Your task to perform on an android device: open a bookmark in the chrome app Image 0: 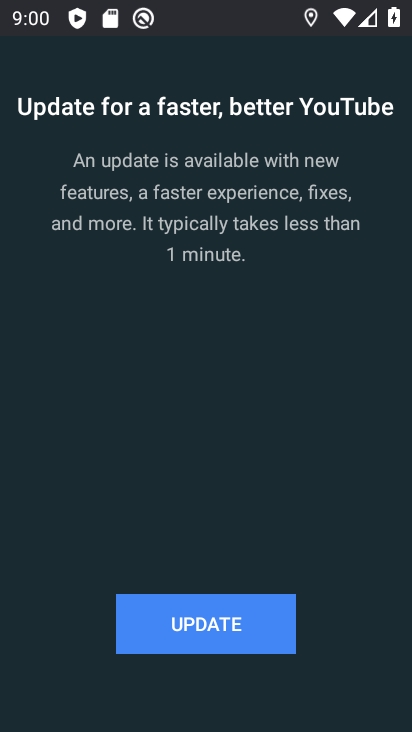
Step 0: drag from (256, 572) to (164, 572)
Your task to perform on an android device: open a bookmark in the chrome app Image 1: 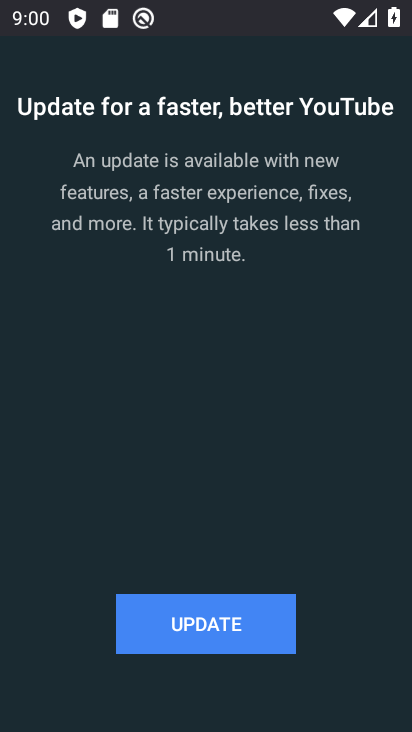
Step 1: press back button
Your task to perform on an android device: open a bookmark in the chrome app Image 2: 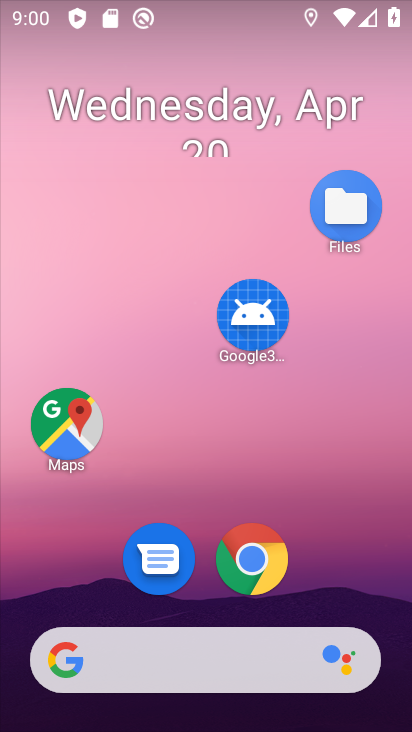
Step 2: click (251, 575)
Your task to perform on an android device: open a bookmark in the chrome app Image 3: 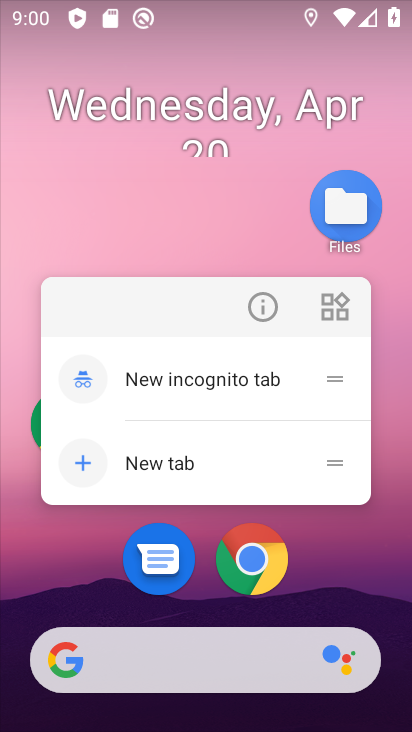
Step 3: click (257, 566)
Your task to perform on an android device: open a bookmark in the chrome app Image 4: 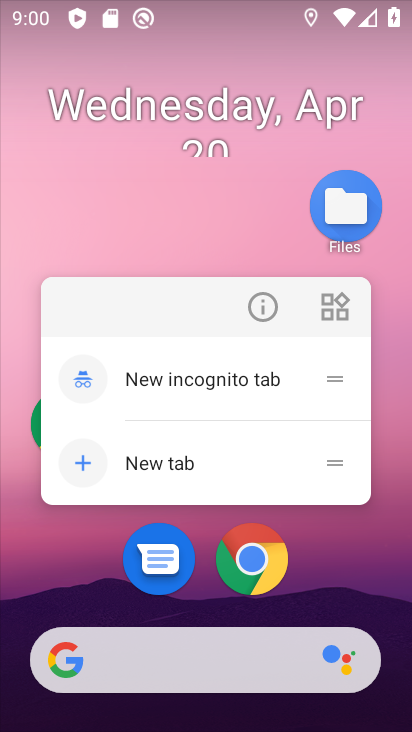
Step 4: click (256, 565)
Your task to perform on an android device: open a bookmark in the chrome app Image 5: 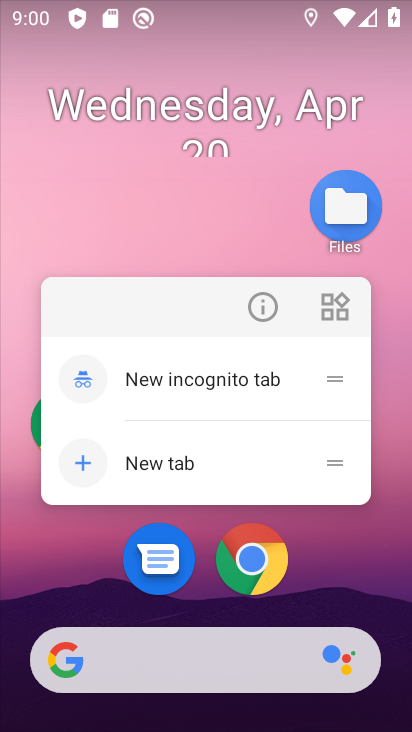
Step 5: click (255, 559)
Your task to perform on an android device: open a bookmark in the chrome app Image 6: 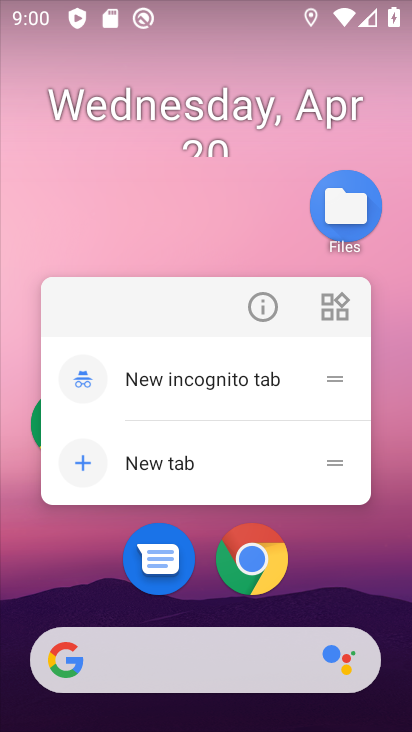
Step 6: click (248, 548)
Your task to perform on an android device: open a bookmark in the chrome app Image 7: 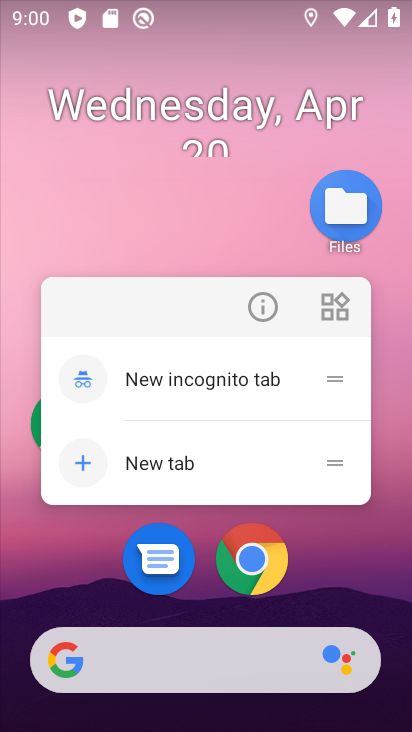
Step 7: click (281, 547)
Your task to perform on an android device: open a bookmark in the chrome app Image 8: 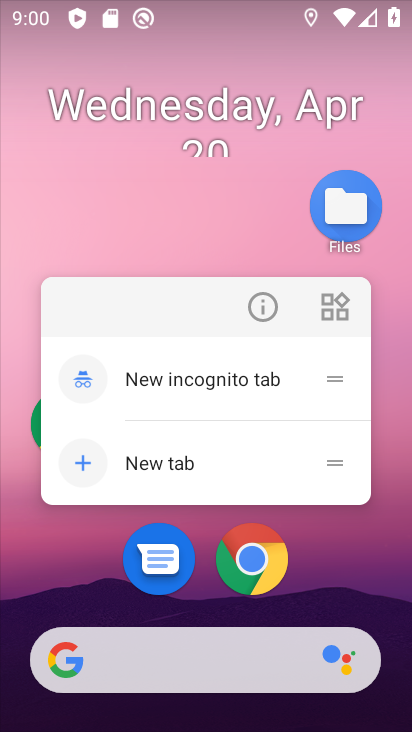
Step 8: click (267, 558)
Your task to perform on an android device: open a bookmark in the chrome app Image 9: 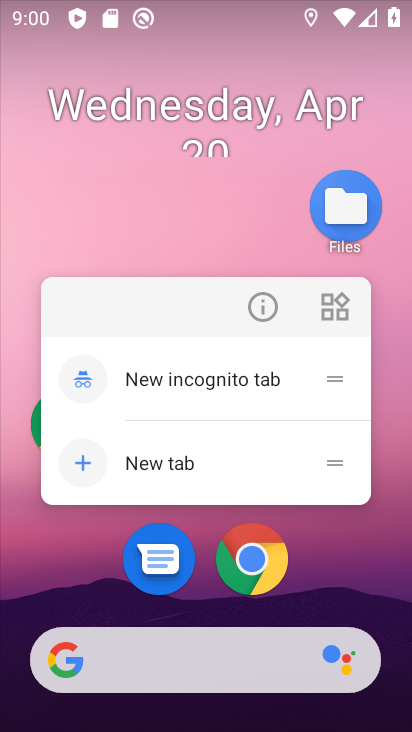
Step 9: click (250, 567)
Your task to perform on an android device: open a bookmark in the chrome app Image 10: 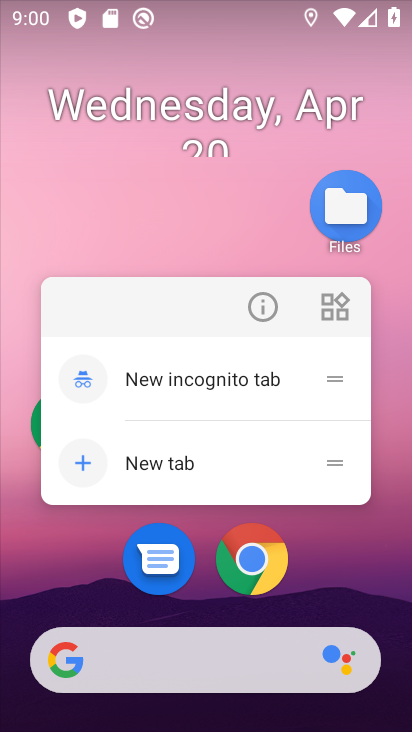
Step 10: click (229, 531)
Your task to perform on an android device: open a bookmark in the chrome app Image 11: 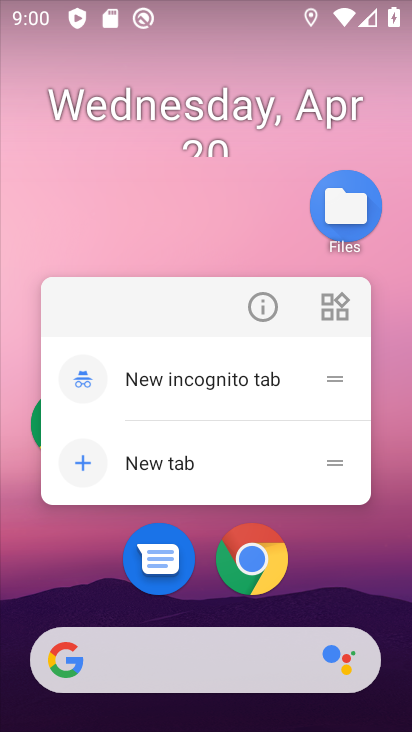
Step 11: click (280, 579)
Your task to perform on an android device: open a bookmark in the chrome app Image 12: 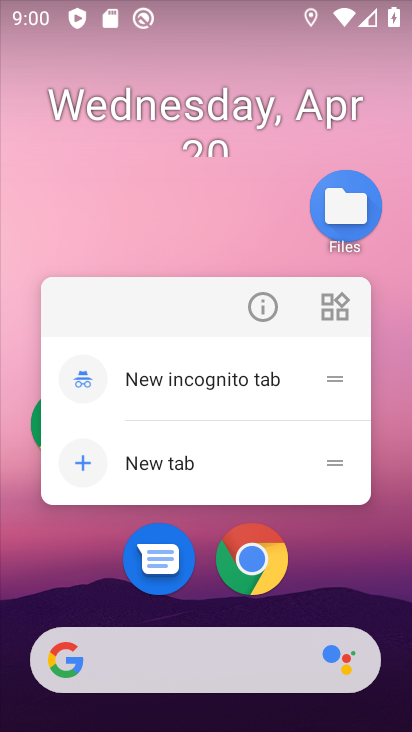
Step 12: click (271, 573)
Your task to perform on an android device: open a bookmark in the chrome app Image 13: 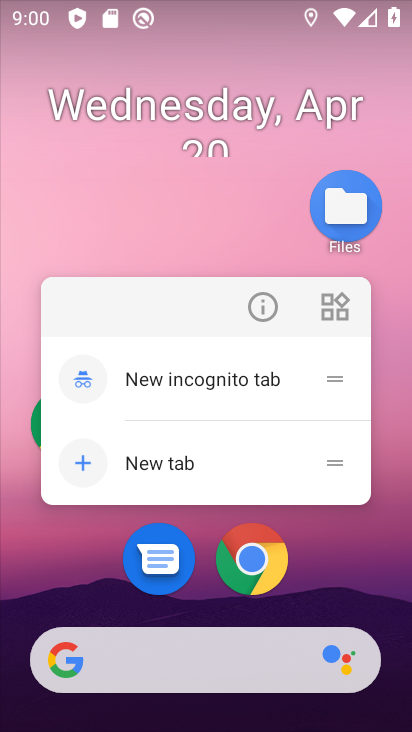
Step 13: drag from (361, 535) to (410, 106)
Your task to perform on an android device: open a bookmark in the chrome app Image 14: 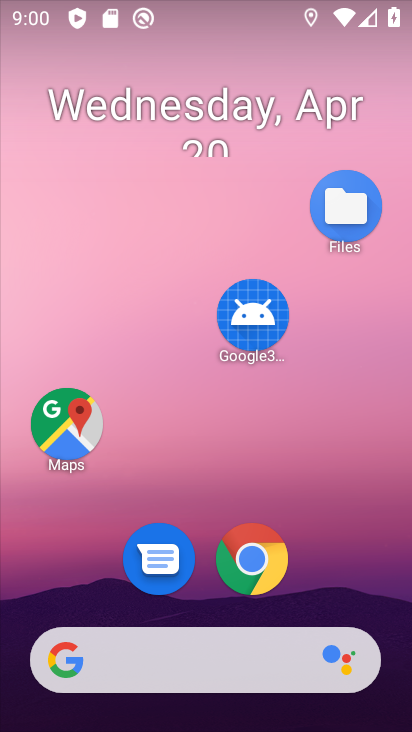
Step 14: click (250, 567)
Your task to perform on an android device: open a bookmark in the chrome app Image 15: 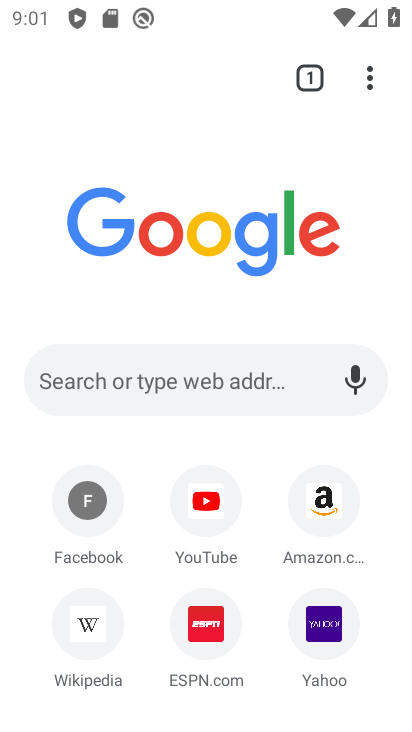
Step 15: drag from (380, 92) to (252, 302)
Your task to perform on an android device: open a bookmark in the chrome app Image 16: 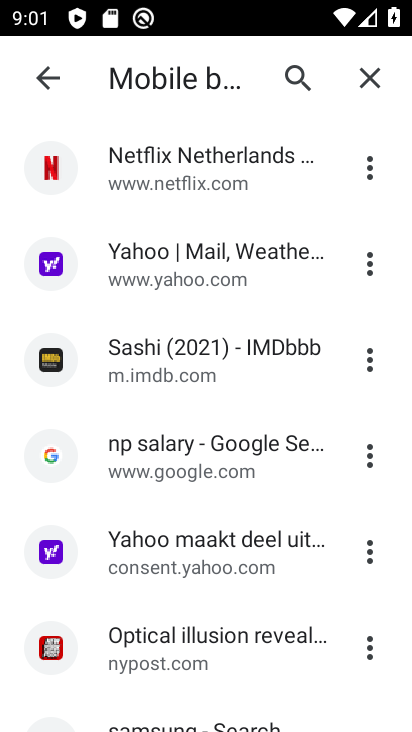
Step 16: click (199, 172)
Your task to perform on an android device: open a bookmark in the chrome app Image 17: 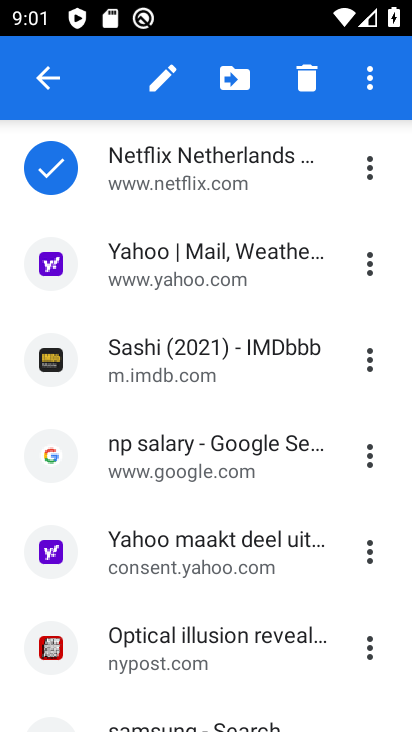
Step 17: click (199, 172)
Your task to perform on an android device: open a bookmark in the chrome app Image 18: 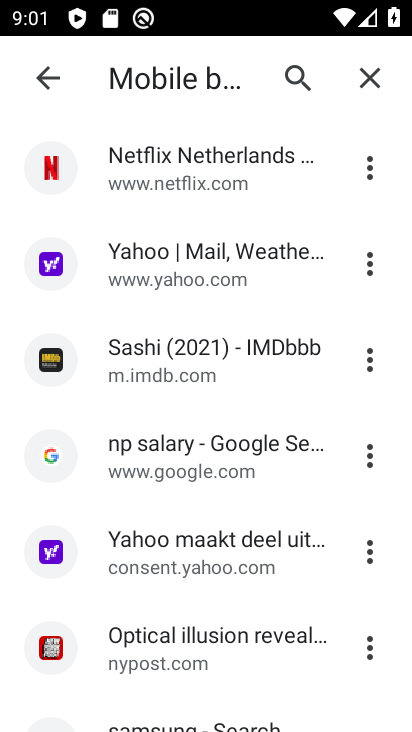
Step 18: click (287, 182)
Your task to perform on an android device: open a bookmark in the chrome app Image 19: 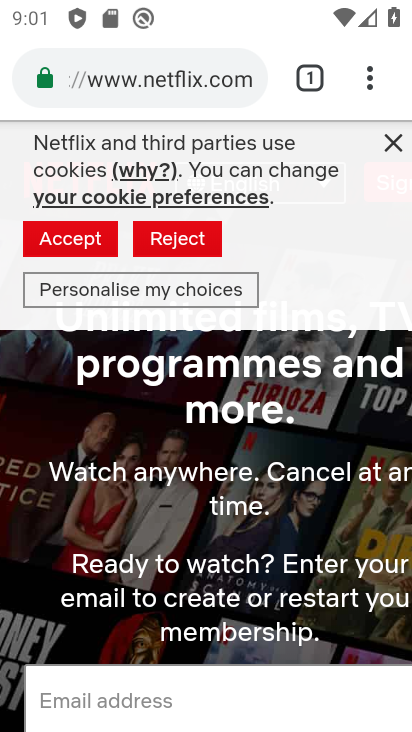
Step 19: task complete